Your task to perform on an android device: all mails in gmail Image 0: 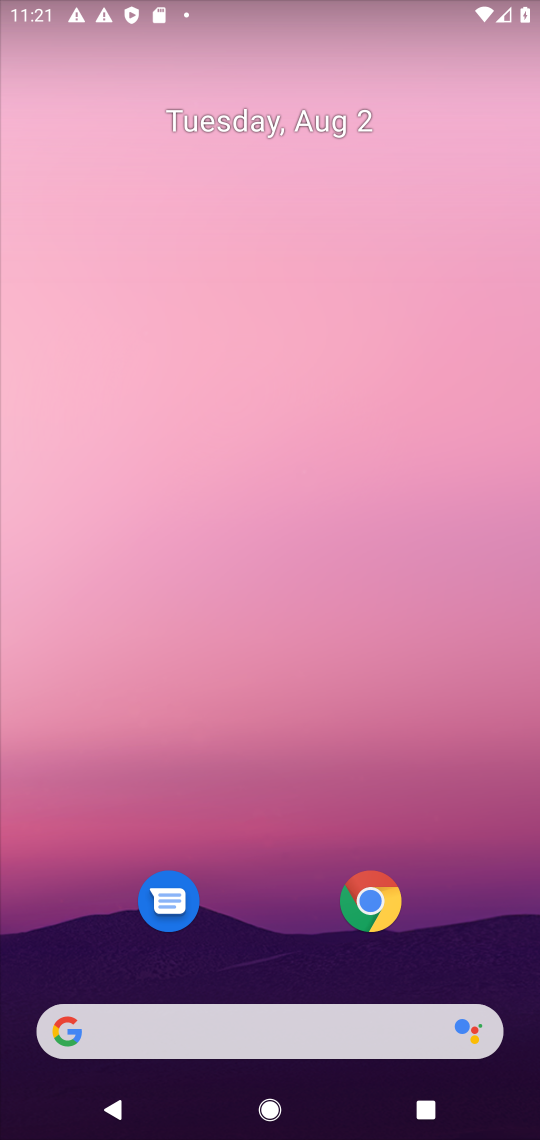
Step 0: drag from (444, 908) to (273, 106)
Your task to perform on an android device: all mails in gmail Image 1: 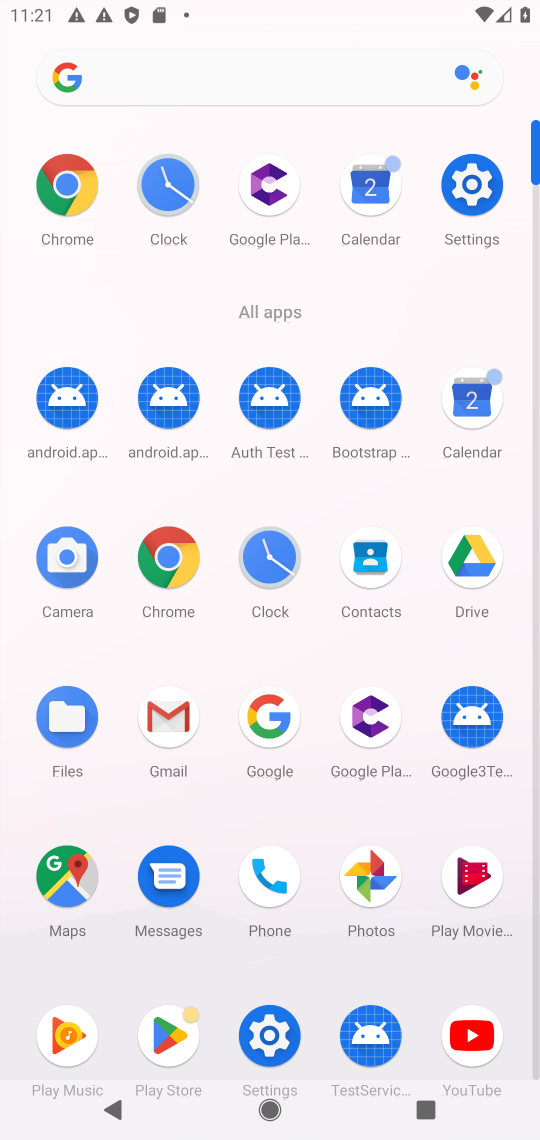
Step 1: click (164, 710)
Your task to perform on an android device: all mails in gmail Image 2: 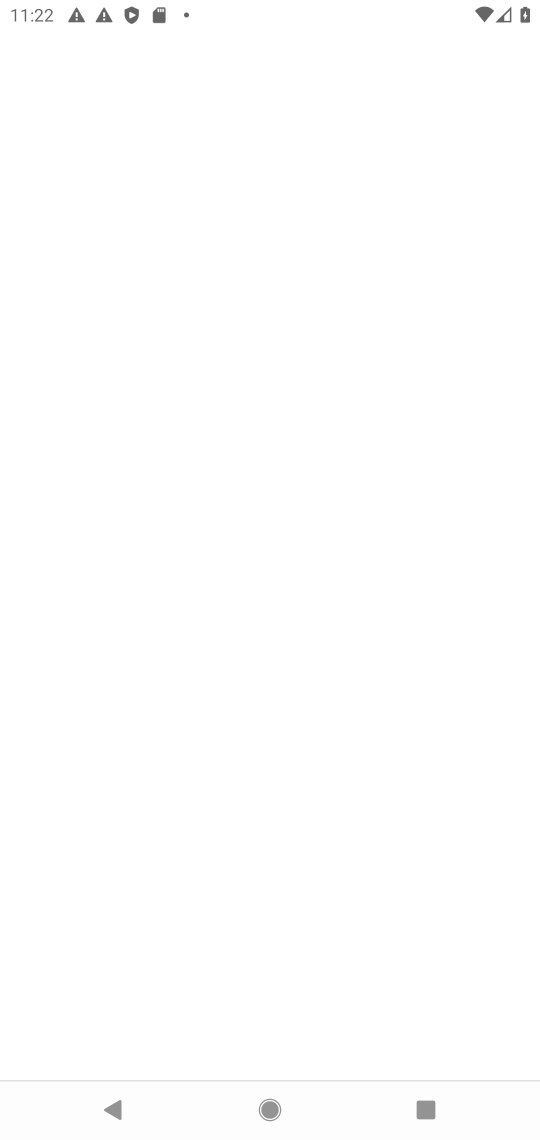
Step 2: task complete